Your task to perform on an android device: open app "Life360: Find Family & Friends" (install if not already installed) Image 0: 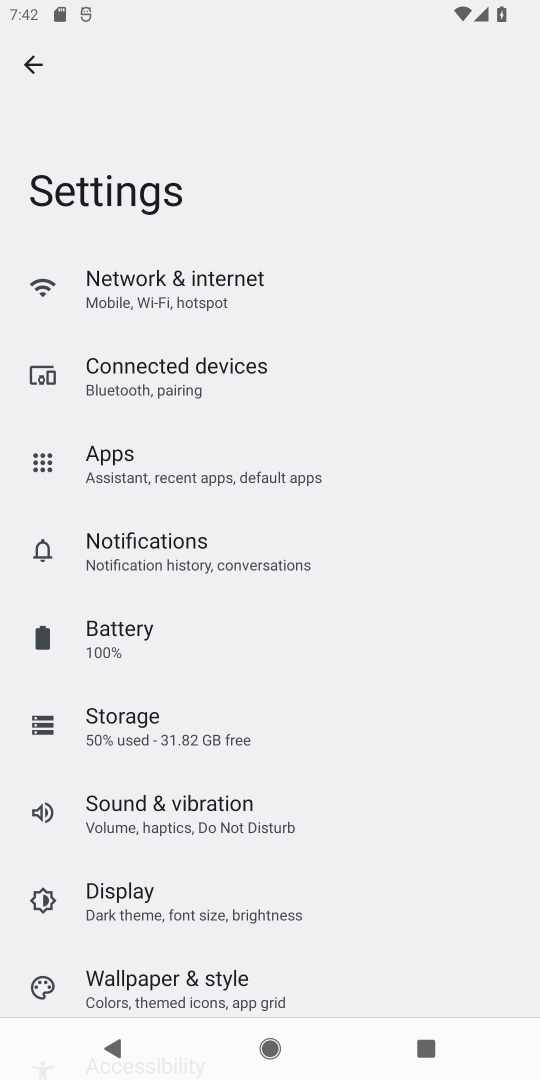
Step 0: press home button
Your task to perform on an android device: open app "Life360: Find Family & Friends" (install if not already installed) Image 1: 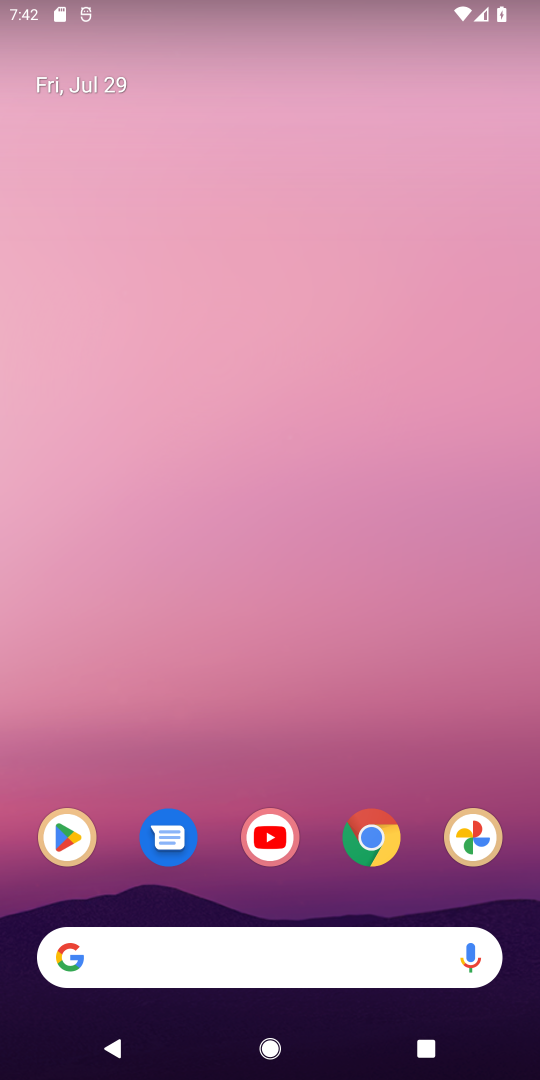
Step 1: click (67, 833)
Your task to perform on an android device: open app "Life360: Find Family & Friends" (install if not already installed) Image 2: 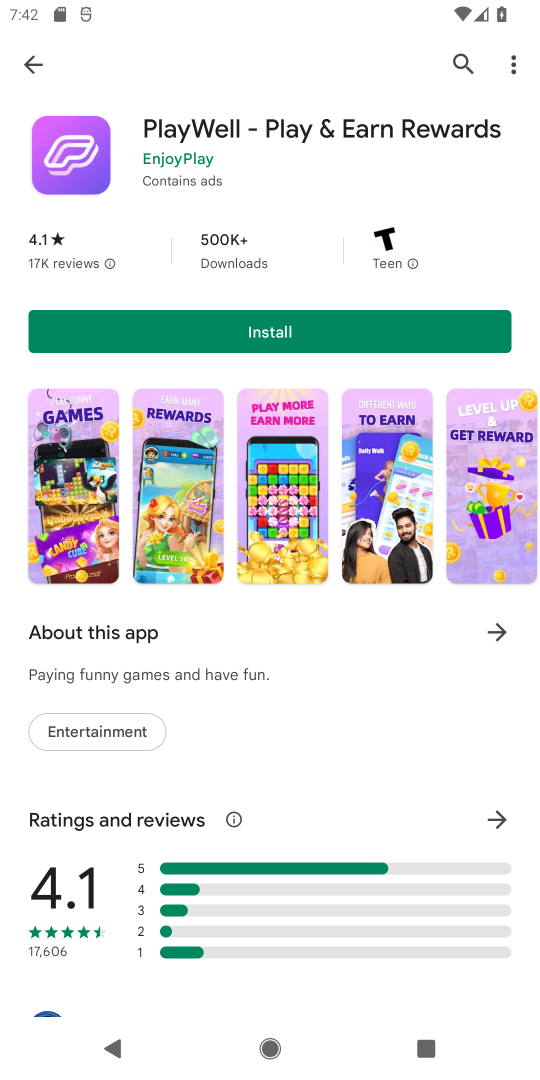
Step 2: click (463, 67)
Your task to perform on an android device: open app "Life360: Find Family & Friends" (install if not already installed) Image 3: 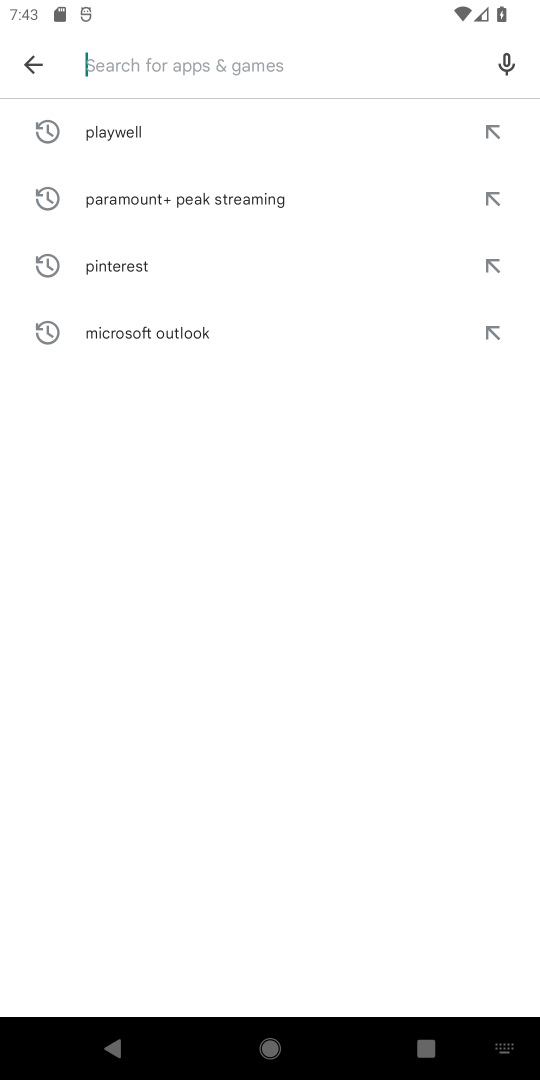
Step 3: type "Life360: Find Family & Friends"
Your task to perform on an android device: open app "Life360: Find Family & Friends" (install if not already installed) Image 4: 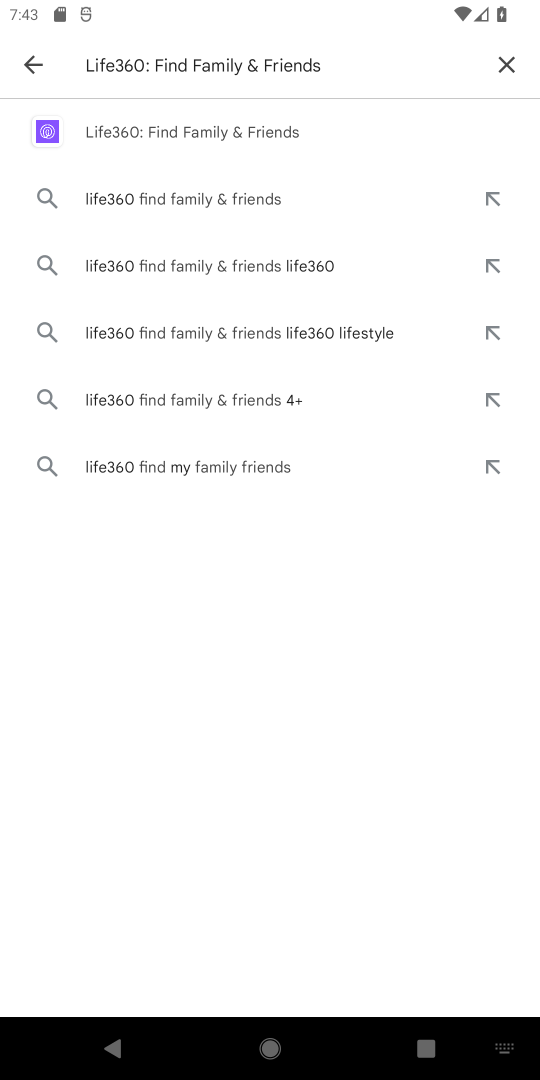
Step 4: click (263, 130)
Your task to perform on an android device: open app "Life360: Find Family & Friends" (install if not already installed) Image 5: 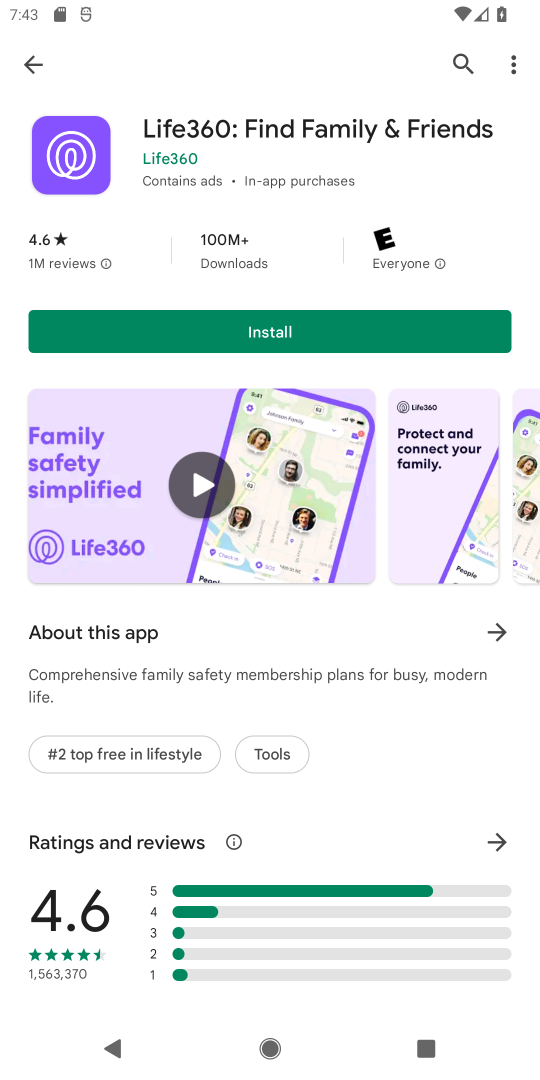
Step 5: click (339, 337)
Your task to perform on an android device: open app "Life360: Find Family & Friends" (install if not already installed) Image 6: 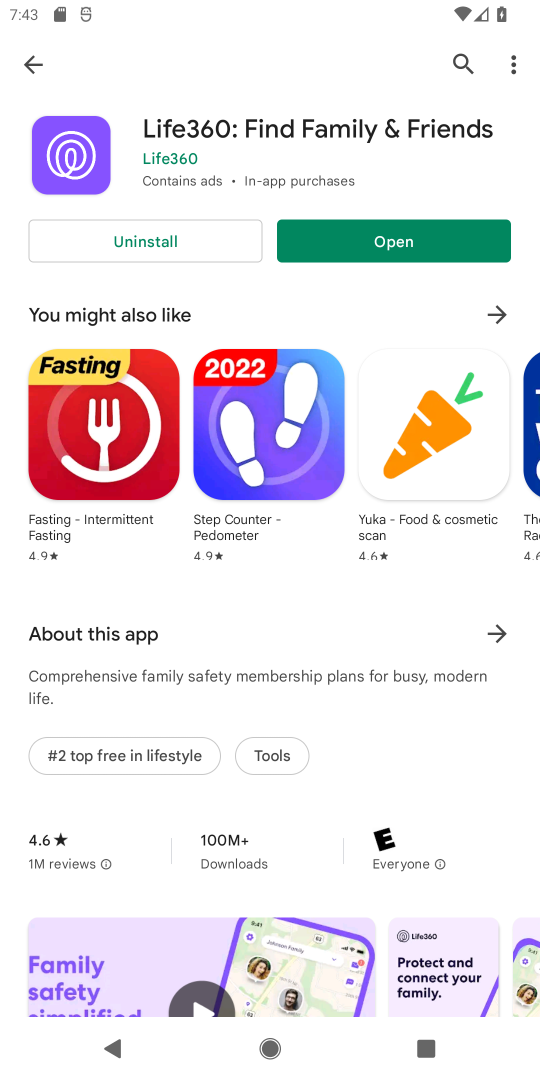
Step 6: click (367, 234)
Your task to perform on an android device: open app "Life360: Find Family & Friends" (install if not already installed) Image 7: 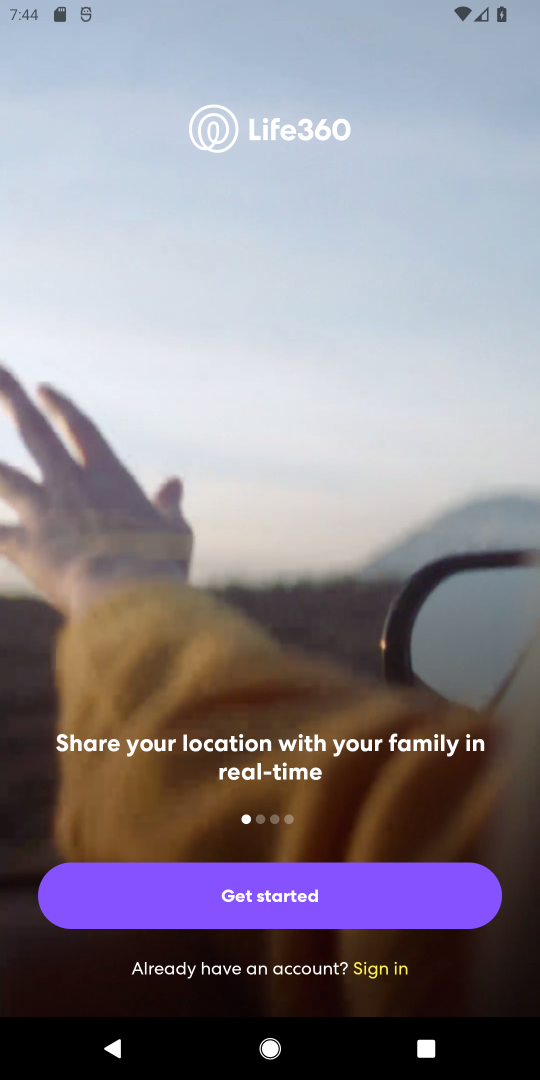
Step 7: task complete